Your task to perform on an android device: Open the phone app and click the voicemail tab. Image 0: 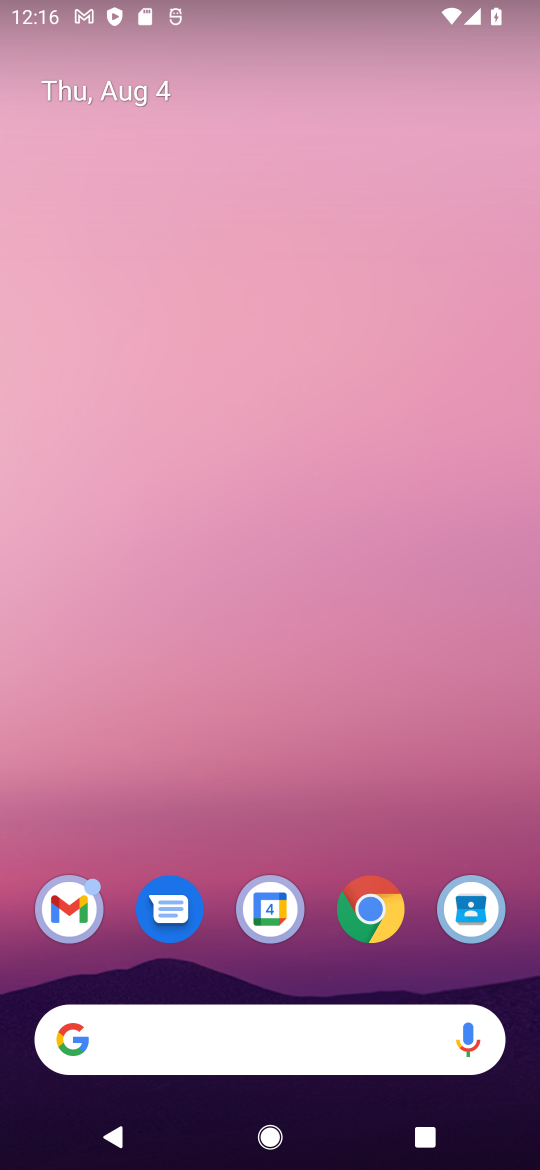
Step 0: drag from (329, 886) to (290, 356)
Your task to perform on an android device: Open the phone app and click the voicemail tab. Image 1: 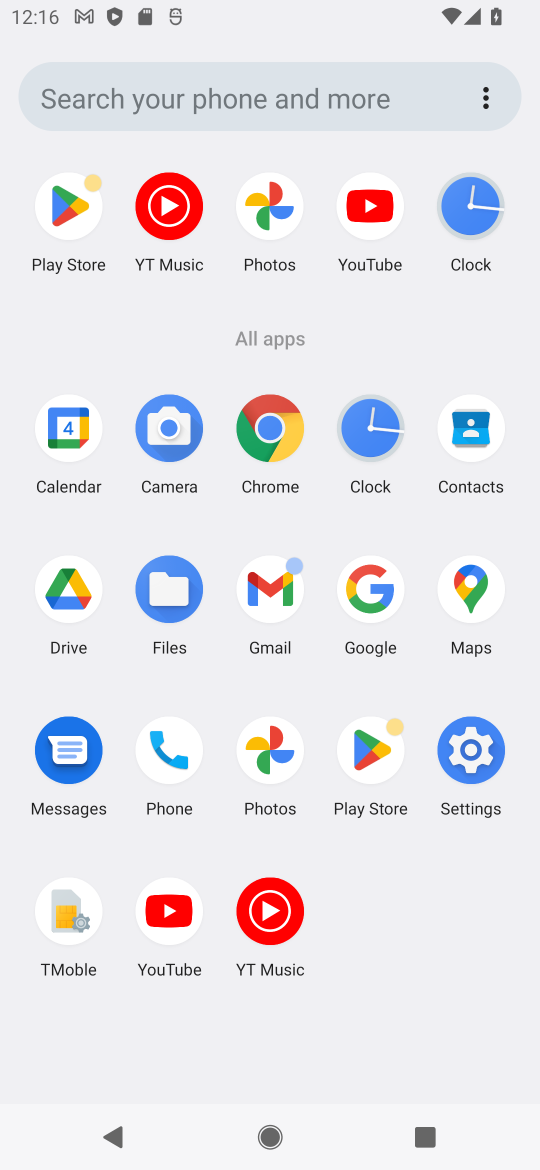
Step 1: click (164, 747)
Your task to perform on an android device: Open the phone app and click the voicemail tab. Image 2: 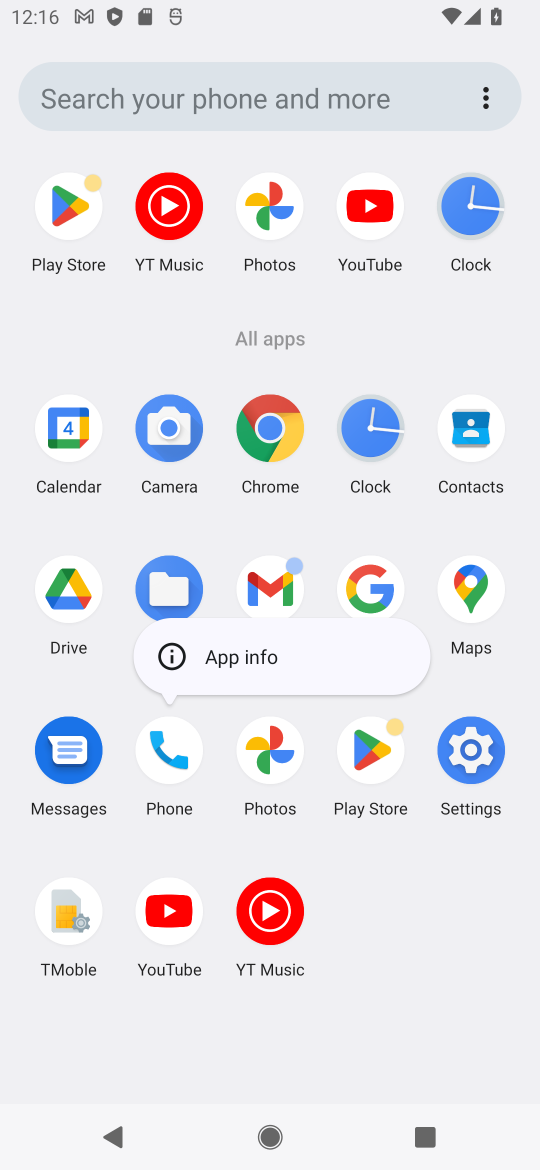
Step 2: click (164, 747)
Your task to perform on an android device: Open the phone app and click the voicemail tab. Image 3: 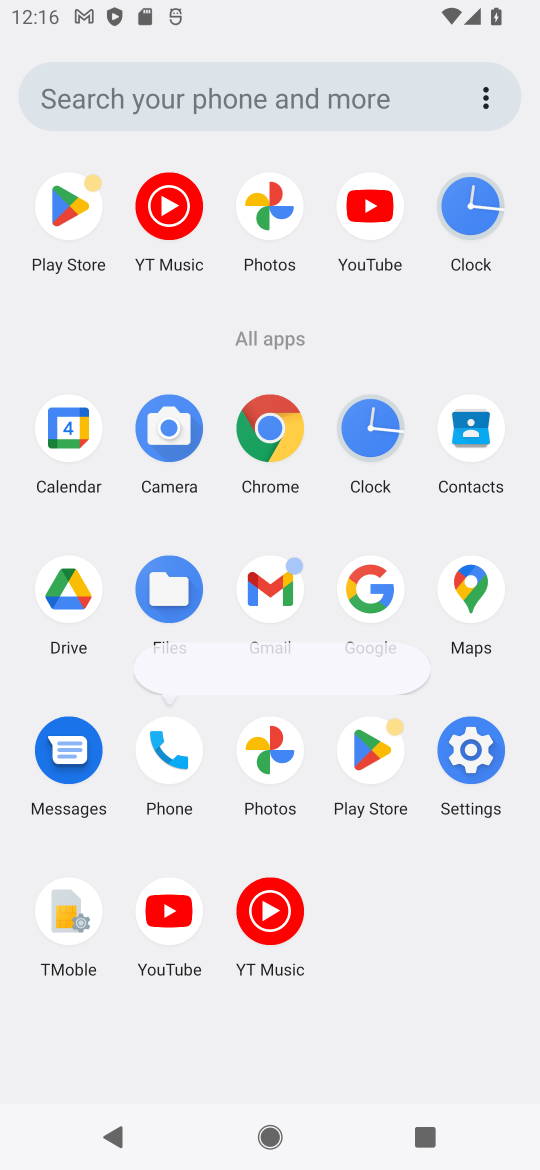
Step 3: click (164, 747)
Your task to perform on an android device: Open the phone app and click the voicemail tab. Image 4: 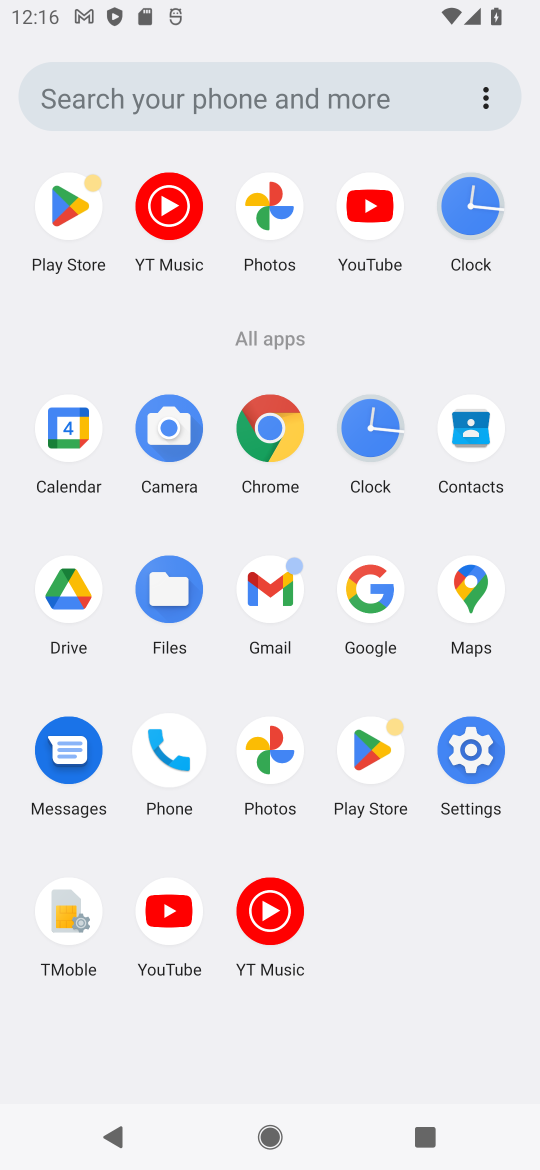
Step 4: click (164, 747)
Your task to perform on an android device: Open the phone app and click the voicemail tab. Image 5: 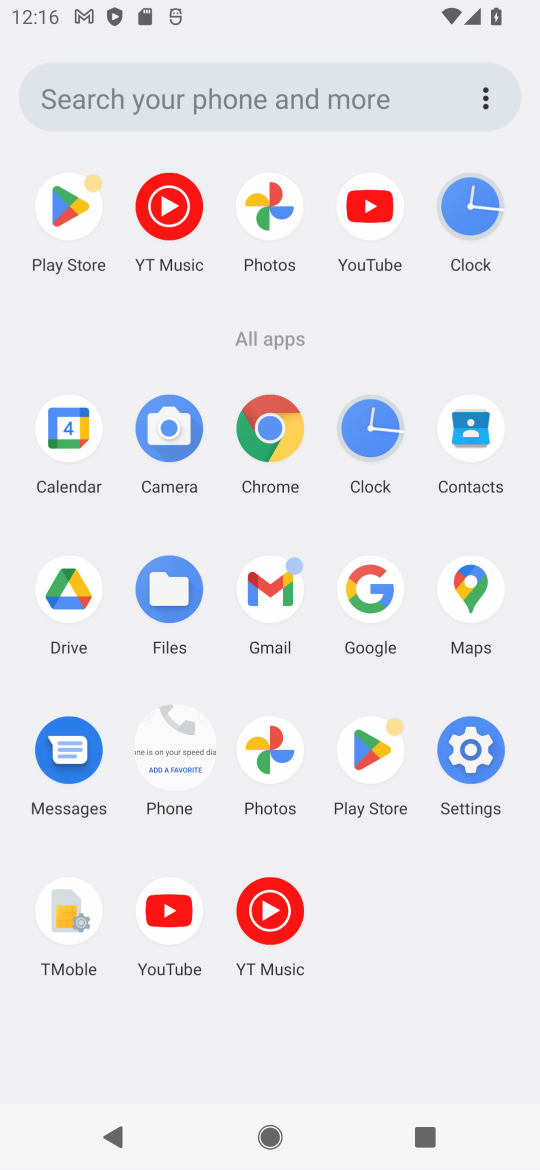
Step 5: click (164, 747)
Your task to perform on an android device: Open the phone app and click the voicemail tab. Image 6: 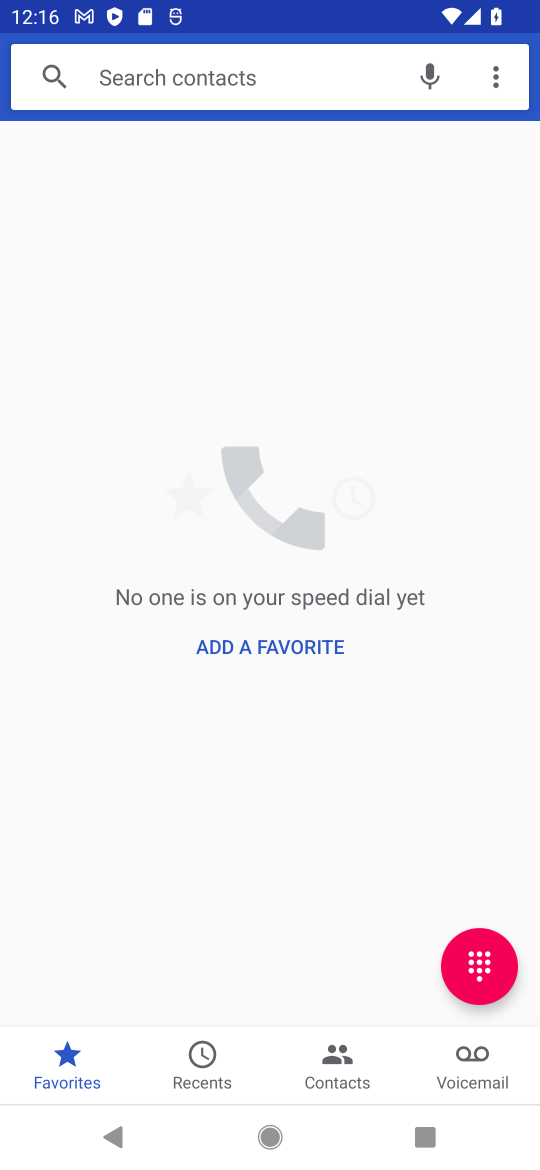
Step 6: click (462, 1078)
Your task to perform on an android device: Open the phone app and click the voicemail tab. Image 7: 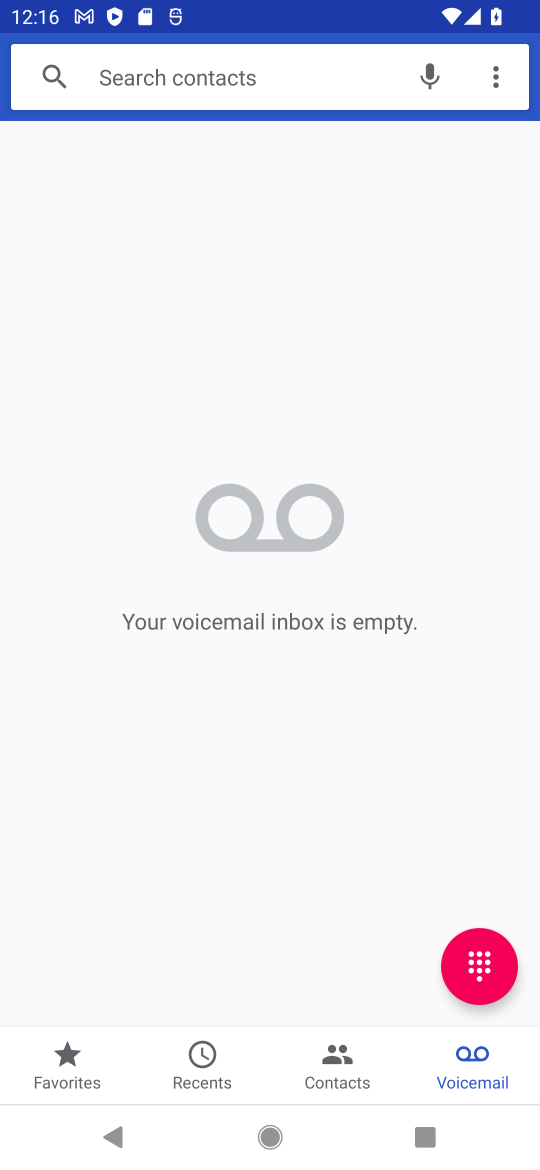
Step 7: task complete